Your task to perform on an android device: change keyboard looks Image 0: 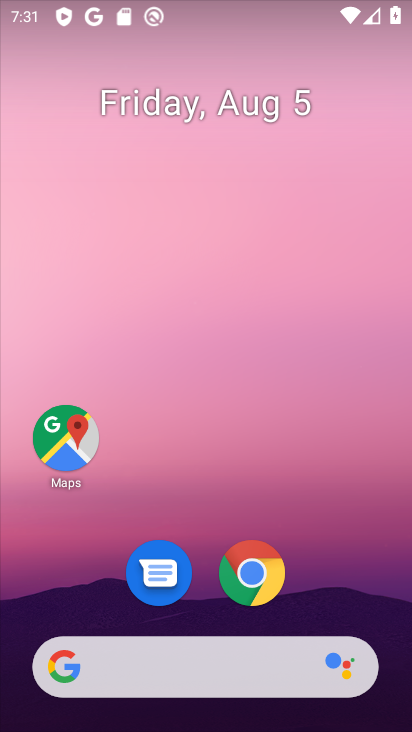
Step 0: drag from (327, 534) to (292, 17)
Your task to perform on an android device: change keyboard looks Image 1: 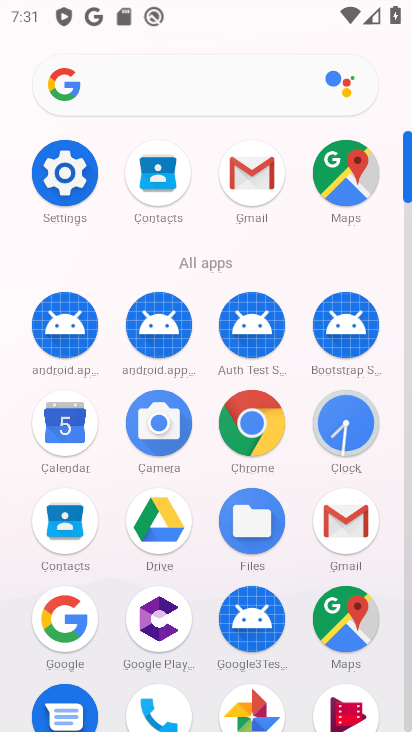
Step 1: drag from (288, 494) to (275, 67)
Your task to perform on an android device: change keyboard looks Image 2: 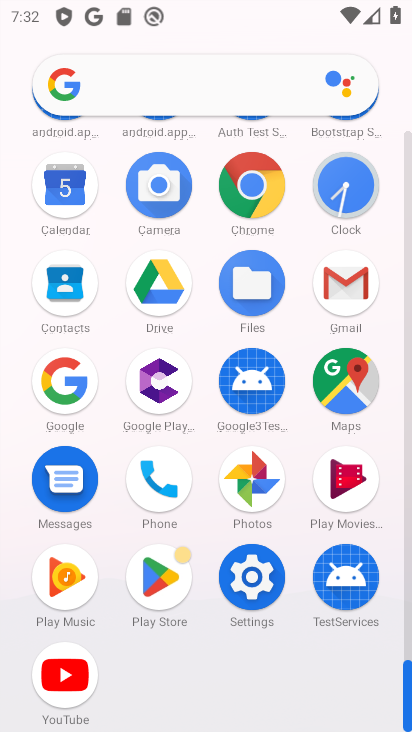
Step 2: click (251, 567)
Your task to perform on an android device: change keyboard looks Image 3: 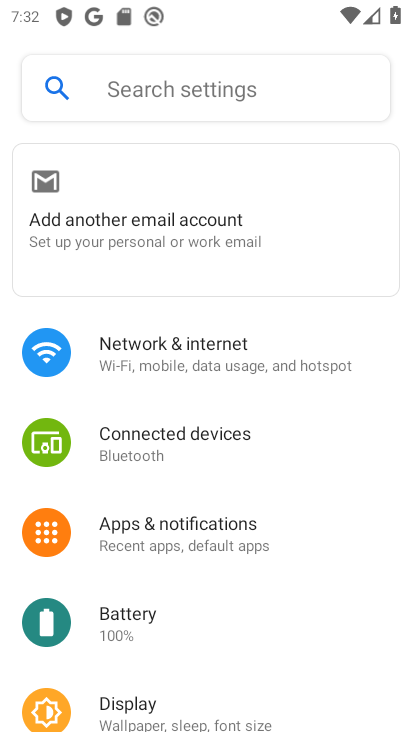
Step 3: drag from (272, 531) to (292, 11)
Your task to perform on an android device: change keyboard looks Image 4: 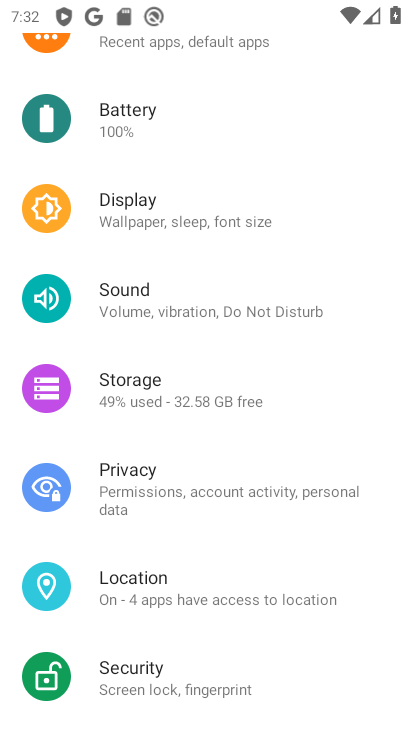
Step 4: drag from (280, 502) to (272, 0)
Your task to perform on an android device: change keyboard looks Image 5: 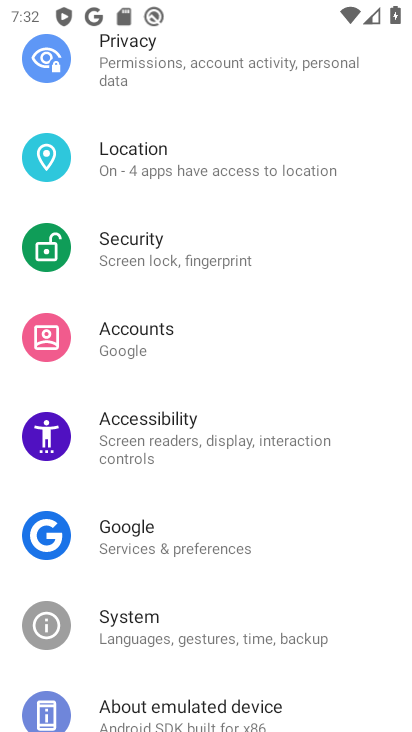
Step 5: click (191, 633)
Your task to perform on an android device: change keyboard looks Image 6: 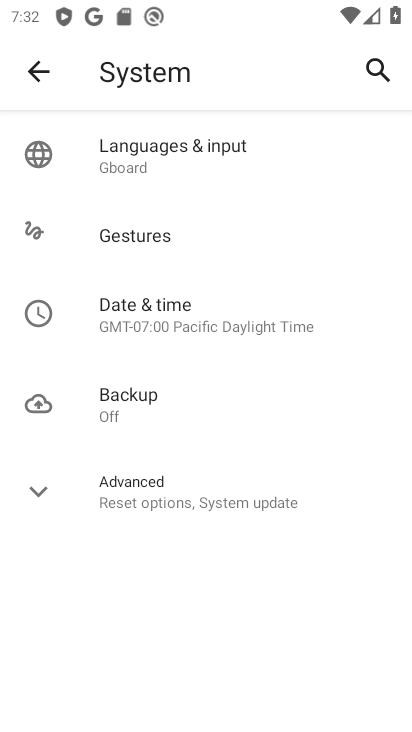
Step 6: click (183, 151)
Your task to perform on an android device: change keyboard looks Image 7: 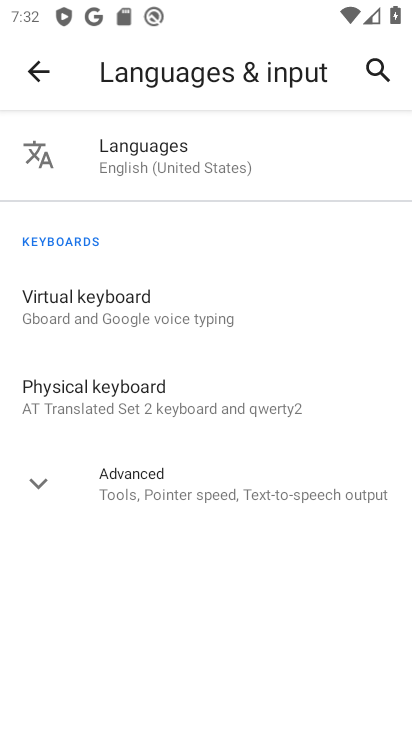
Step 7: click (150, 314)
Your task to perform on an android device: change keyboard looks Image 8: 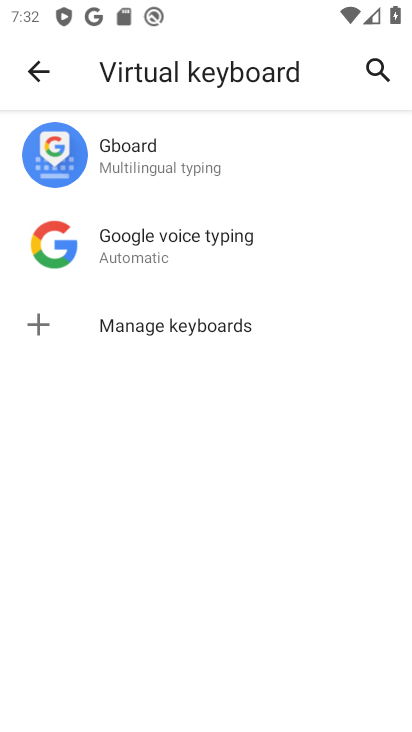
Step 8: click (158, 156)
Your task to perform on an android device: change keyboard looks Image 9: 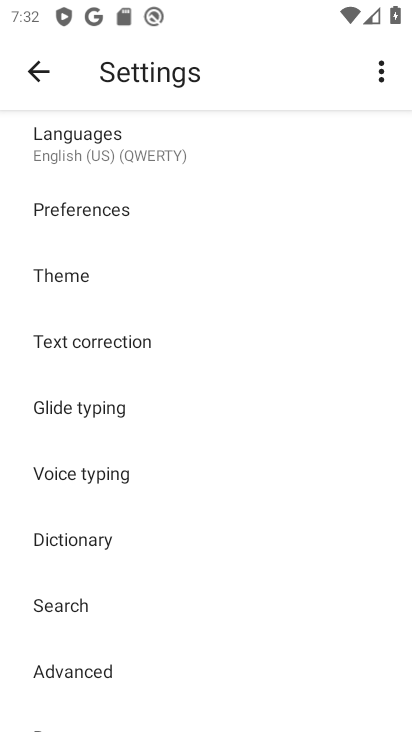
Step 9: click (79, 279)
Your task to perform on an android device: change keyboard looks Image 10: 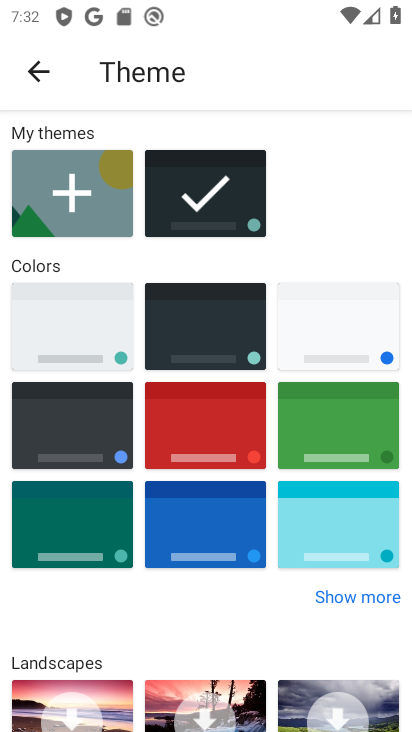
Step 10: click (202, 503)
Your task to perform on an android device: change keyboard looks Image 11: 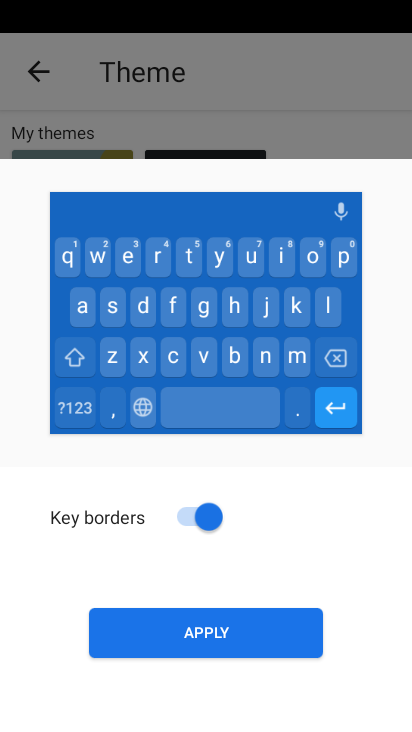
Step 11: click (231, 628)
Your task to perform on an android device: change keyboard looks Image 12: 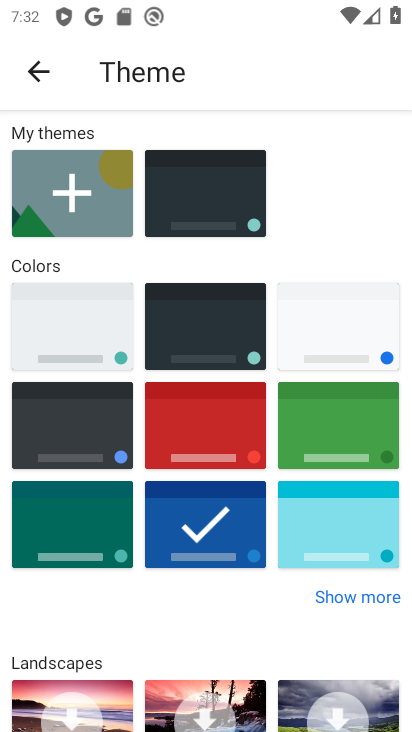
Step 12: task complete